Your task to perform on an android device: Go to eBay Image 0: 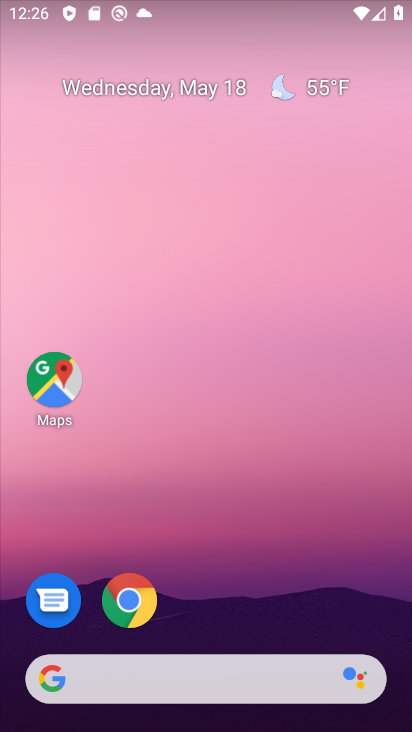
Step 0: click (111, 623)
Your task to perform on an android device: Go to eBay Image 1: 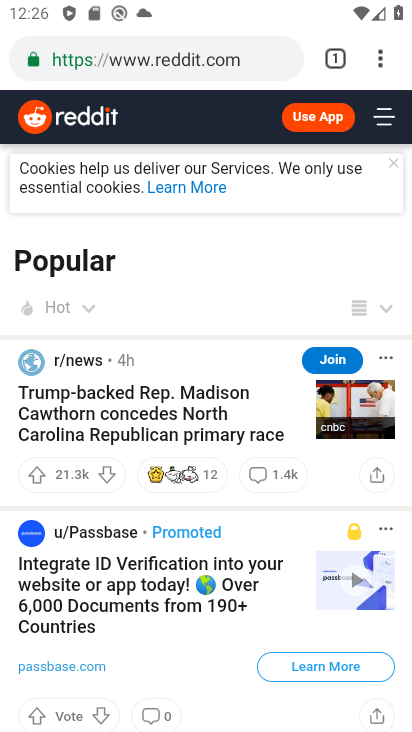
Step 1: click (218, 66)
Your task to perform on an android device: Go to eBay Image 2: 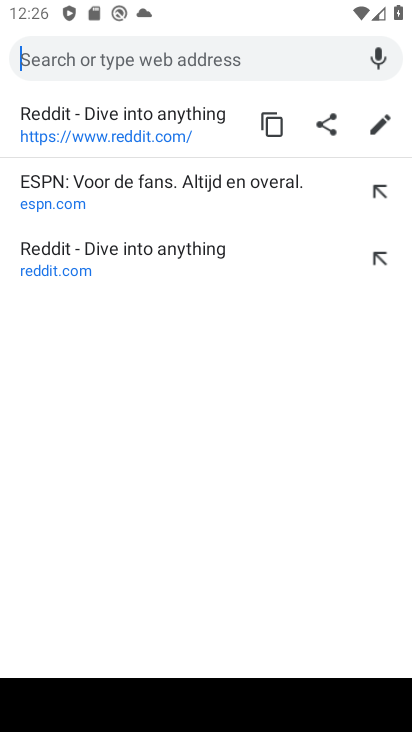
Step 2: type "ebay"
Your task to perform on an android device: Go to eBay Image 3: 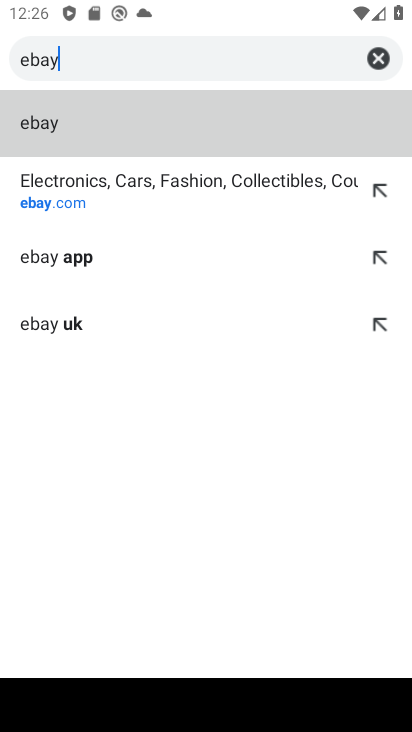
Step 3: click (190, 189)
Your task to perform on an android device: Go to eBay Image 4: 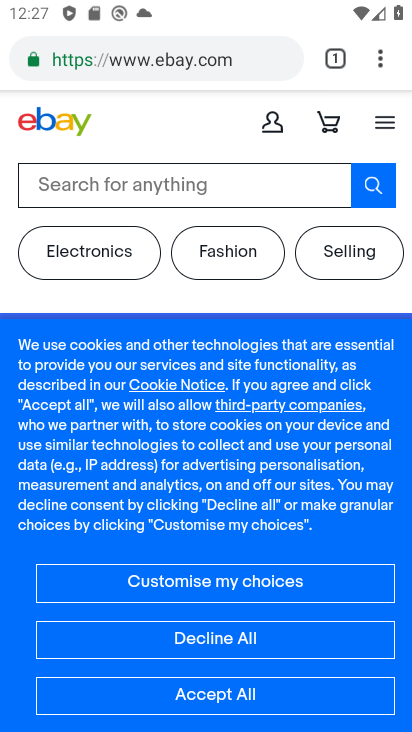
Step 4: task complete